Your task to perform on an android device: open app "YouTube Kids" (install if not already installed) Image 0: 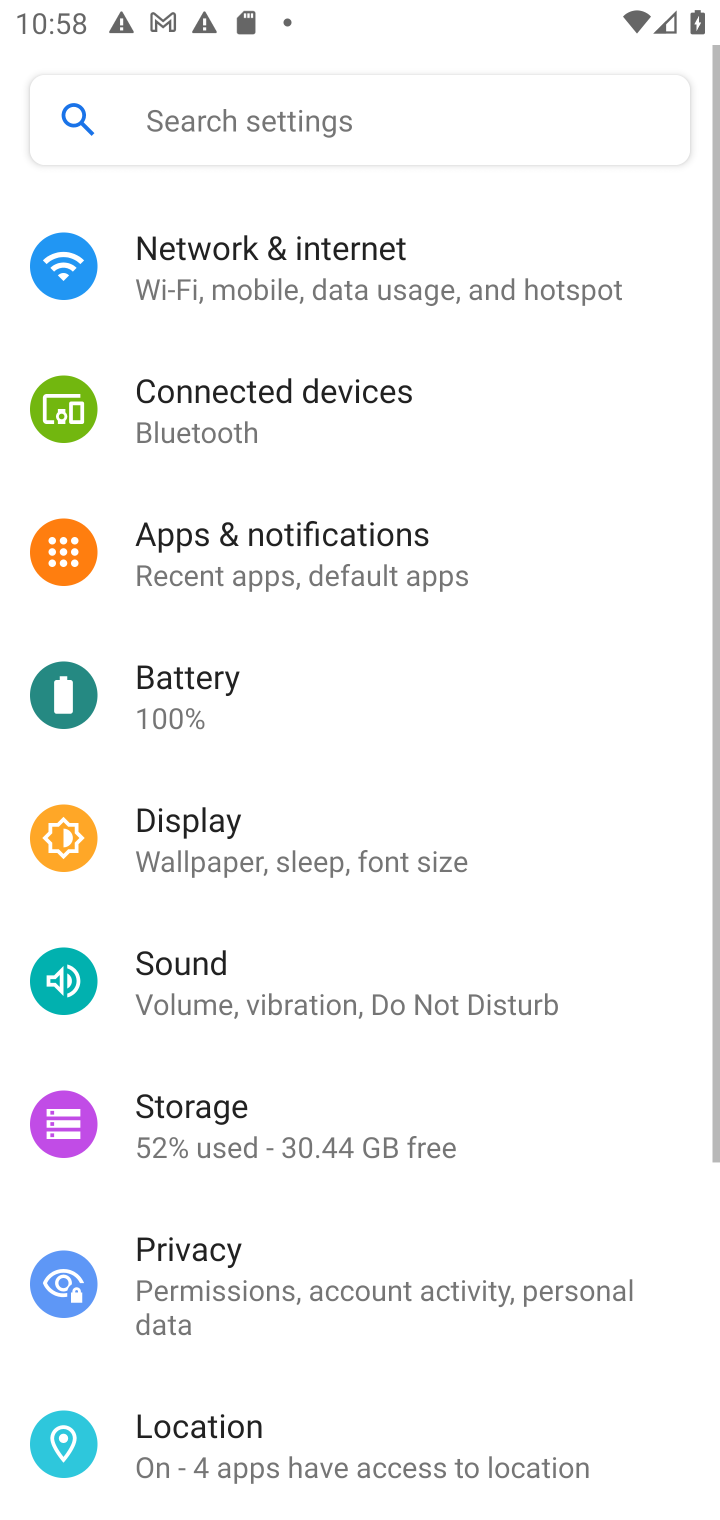
Step 0: press home button
Your task to perform on an android device: open app "YouTube Kids" (install if not already installed) Image 1: 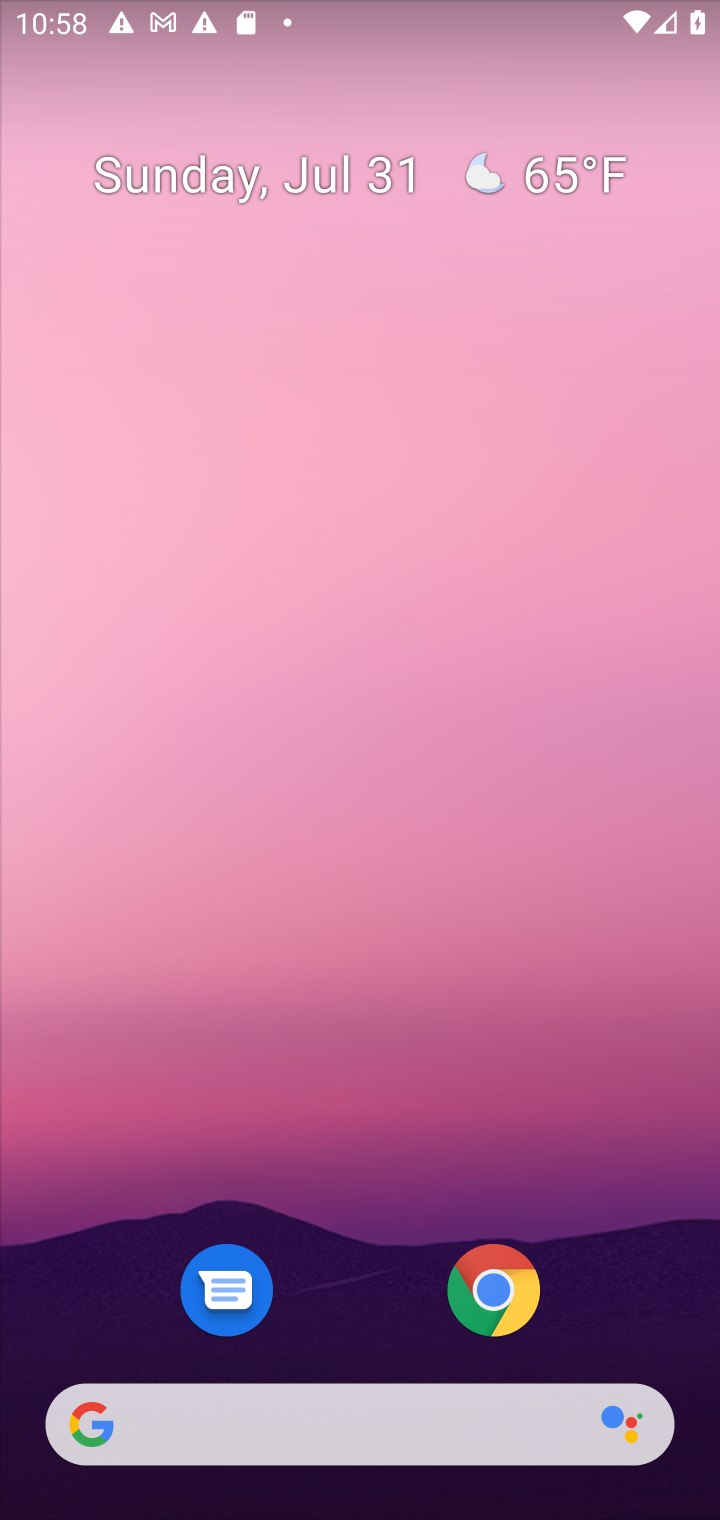
Step 1: drag from (613, 1277) to (596, 109)
Your task to perform on an android device: open app "YouTube Kids" (install if not already installed) Image 2: 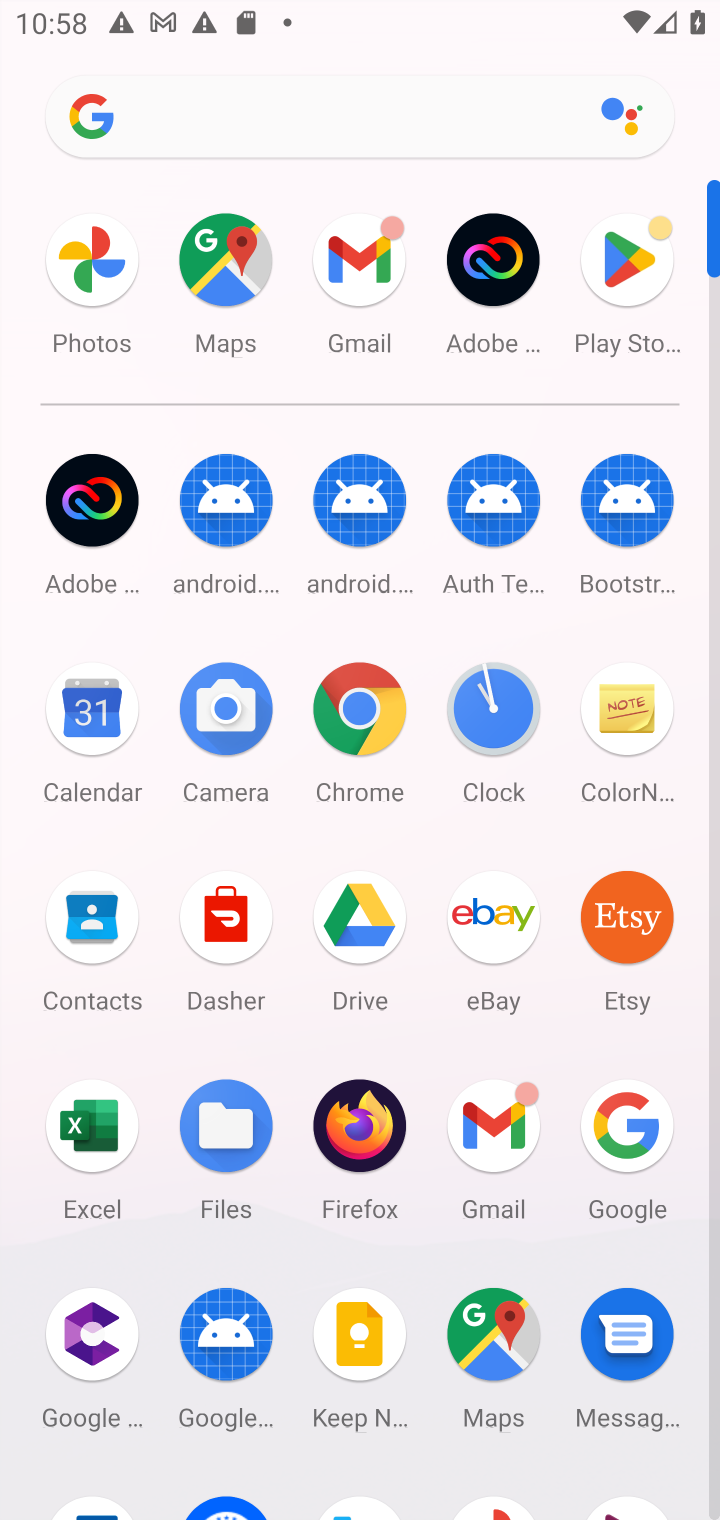
Step 2: click (645, 250)
Your task to perform on an android device: open app "YouTube Kids" (install if not already installed) Image 3: 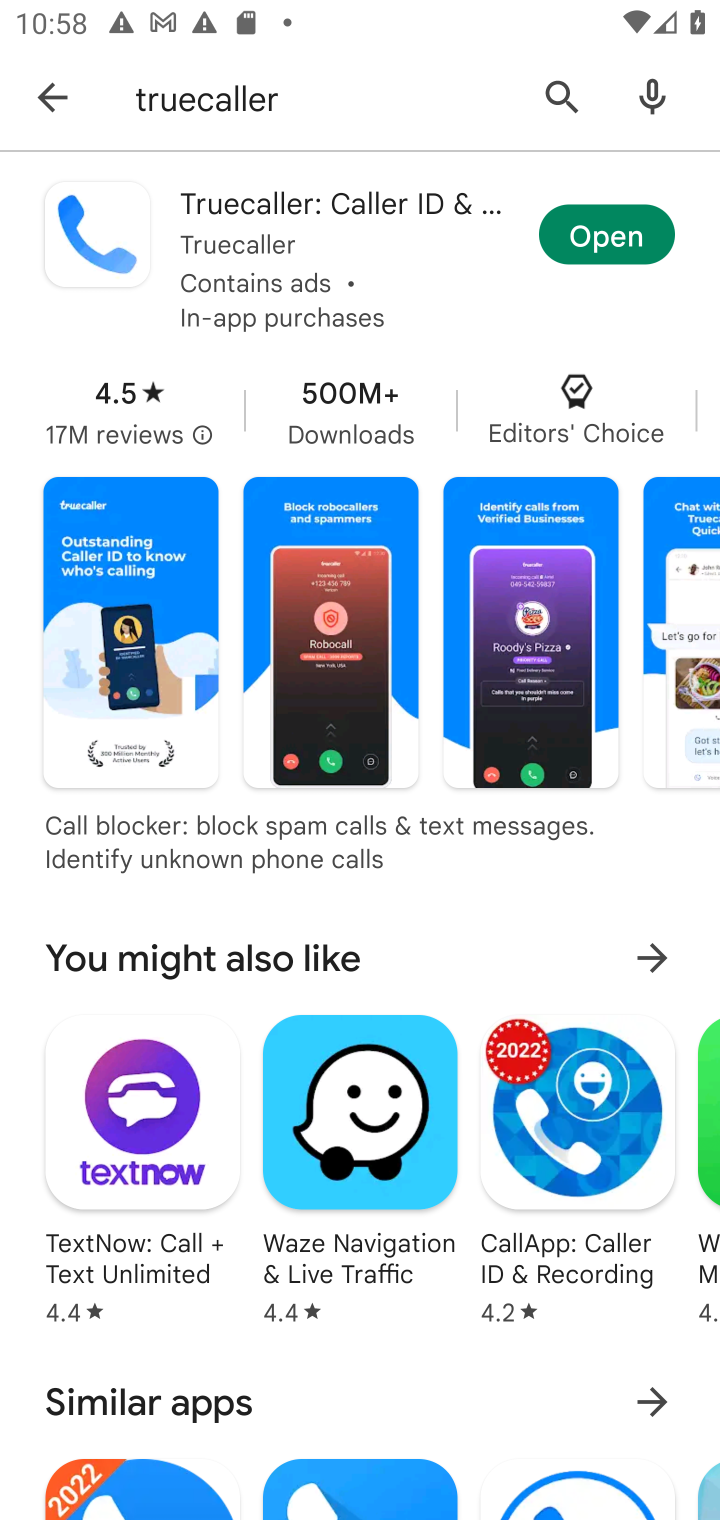
Step 3: click (556, 84)
Your task to perform on an android device: open app "YouTube Kids" (install if not already installed) Image 4: 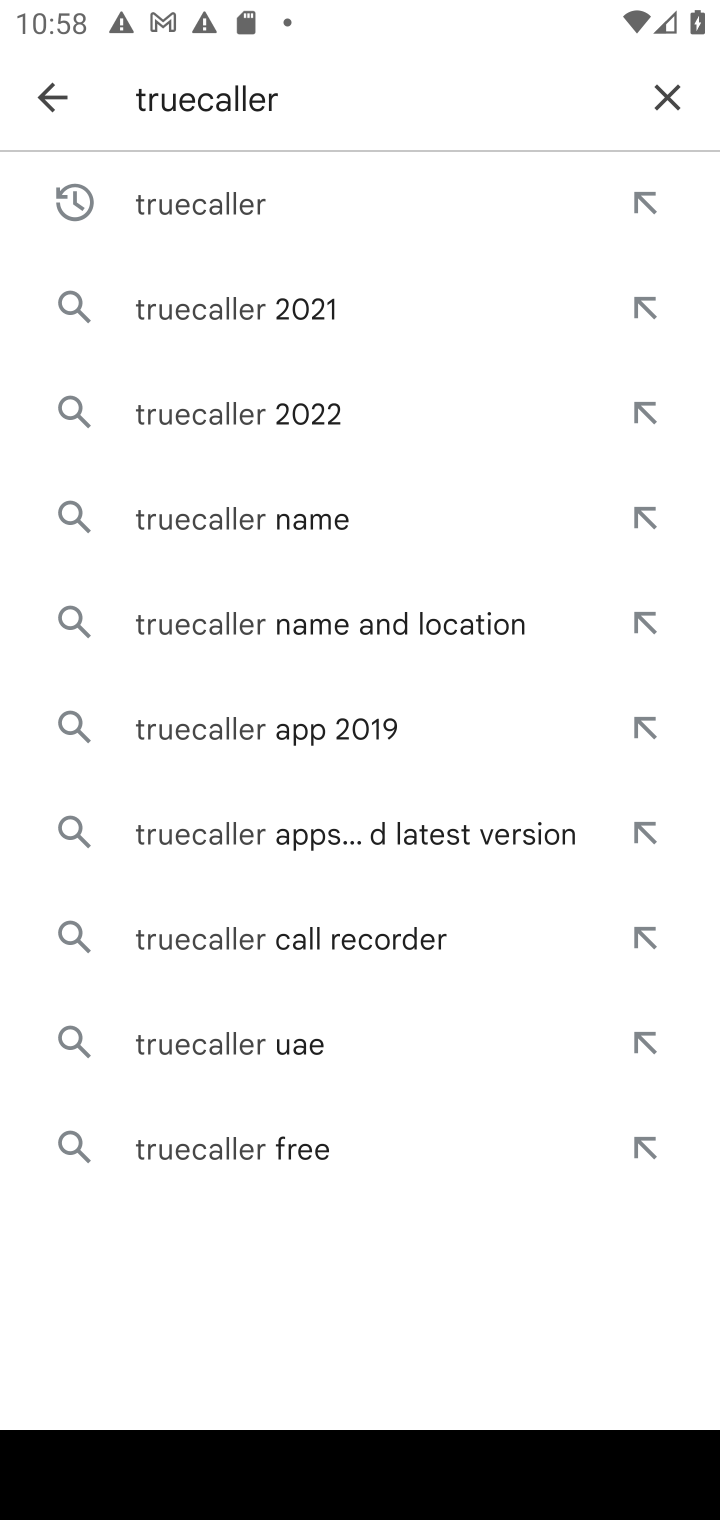
Step 4: click (665, 93)
Your task to perform on an android device: open app "YouTube Kids" (install if not already installed) Image 5: 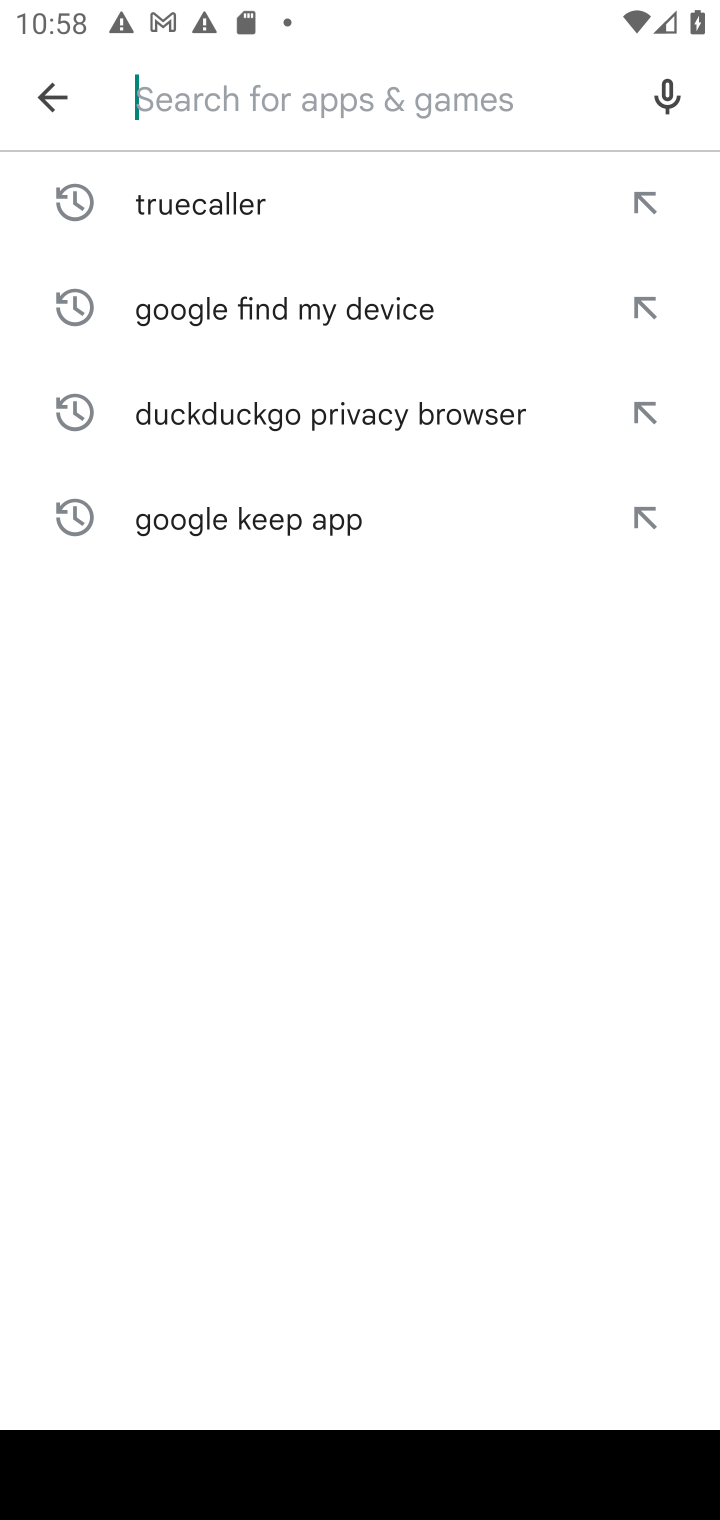
Step 5: type "youtube kids"
Your task to perform on an android device: open app "YouTube Kids" (install if not already installed) Image 6: 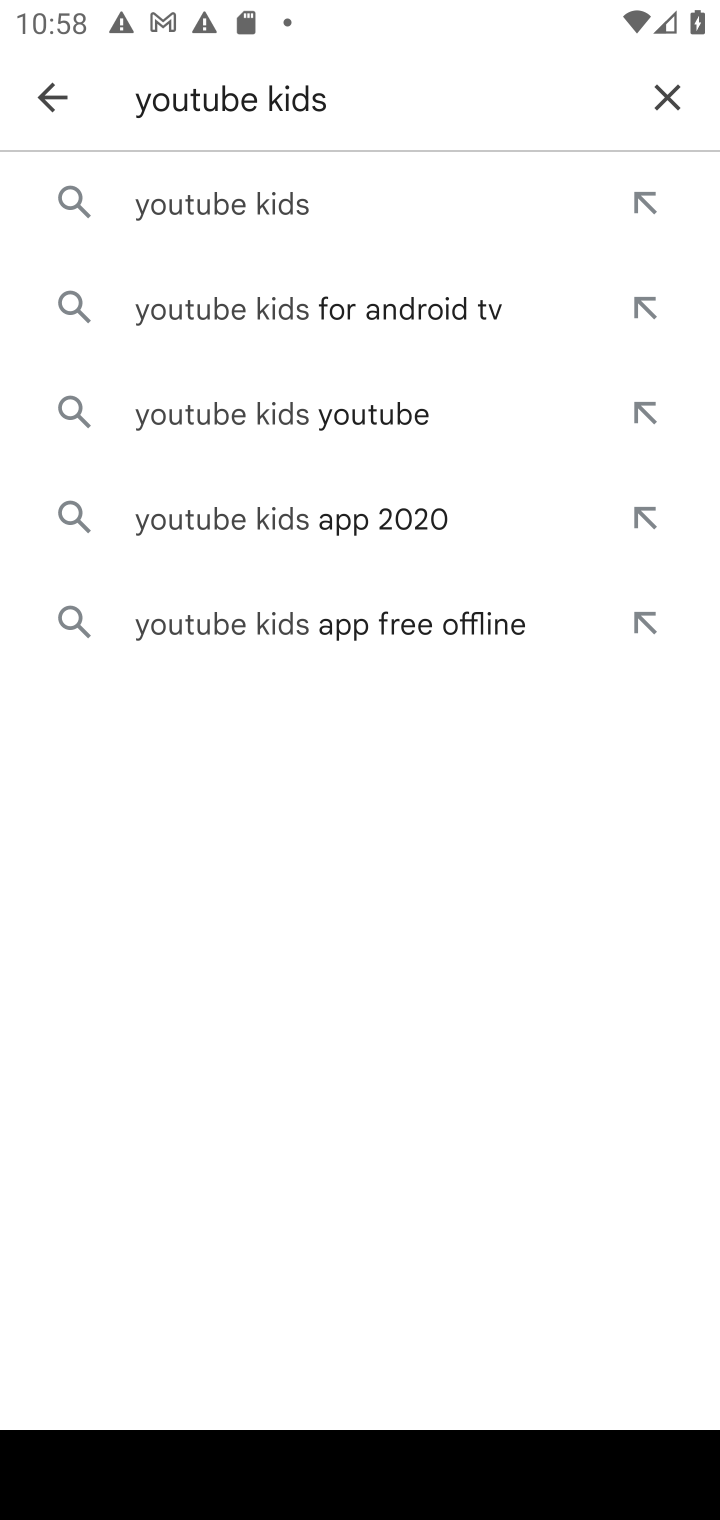
Step 6: click (340, 206)
Your task to perform on an android device: open app "YouTube Kids" (install if not already installed) Image 7: 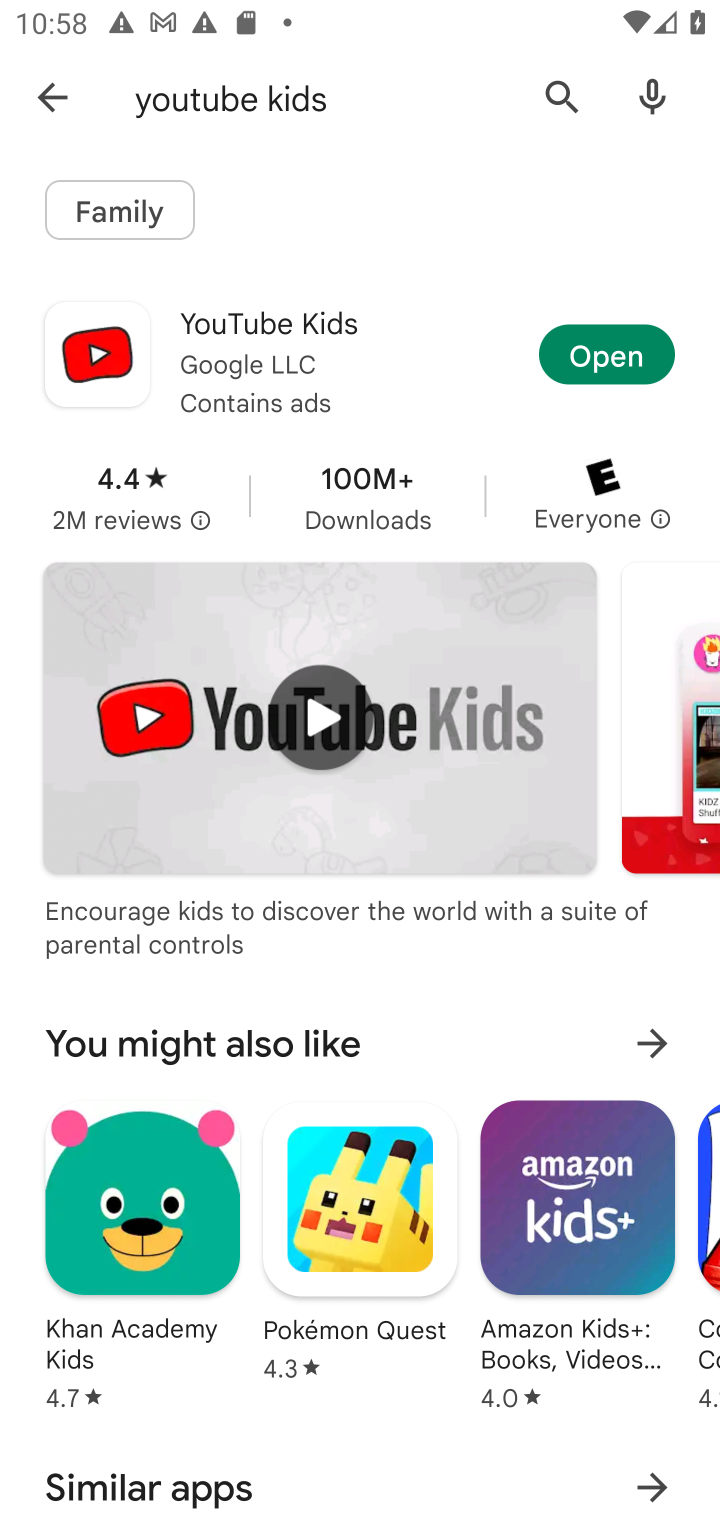
Step 7: click (625, 345)
Your task to perform on an android device: open app "YouTube Kids" (install if not already installed) Image 8: 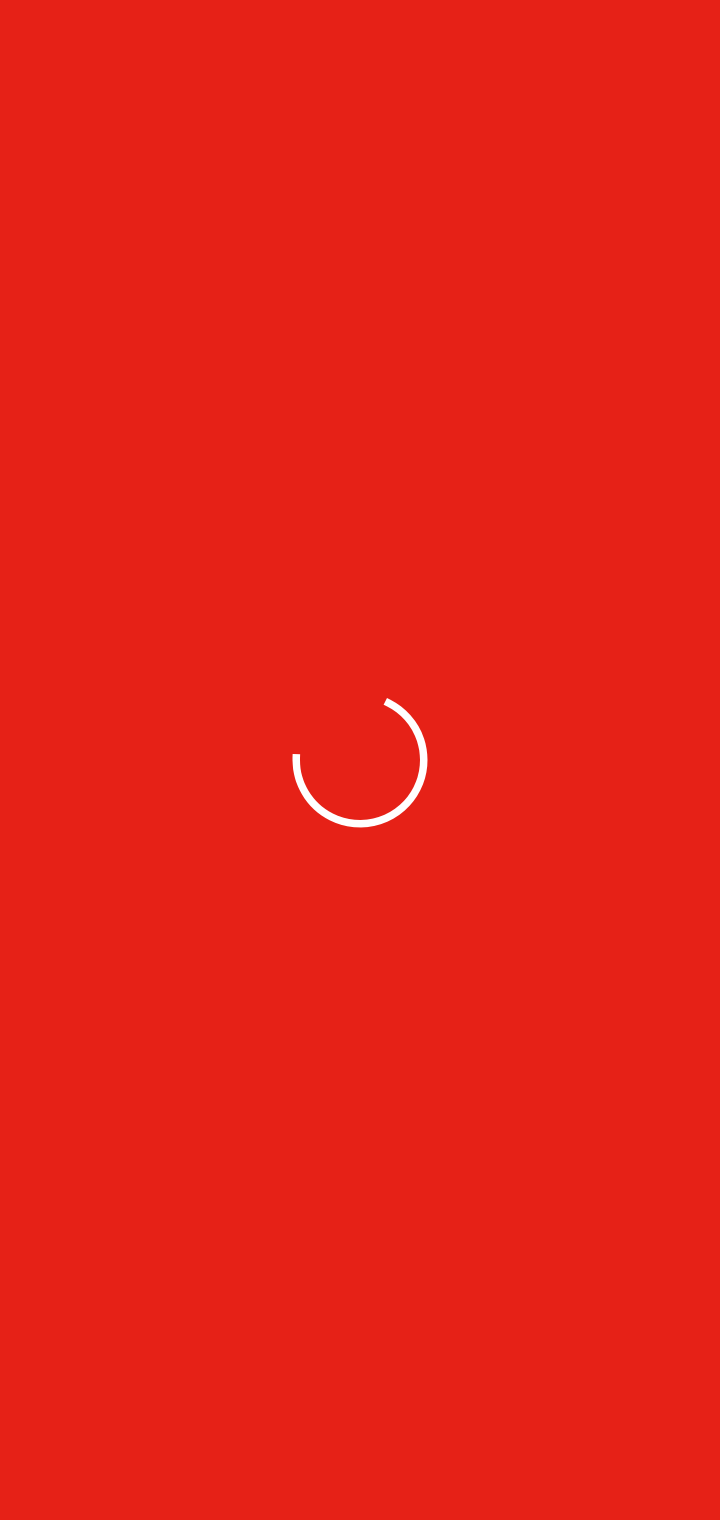
Step 8: task complete